Your task to perform on an android device: Check the weather Image 0: 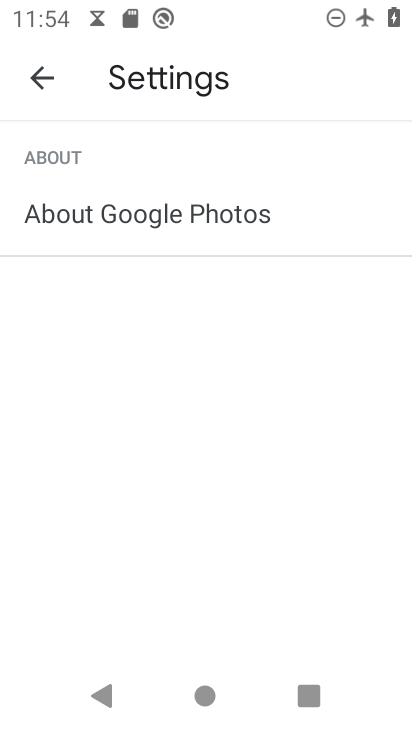
Step 0: press back button
Your task to perform on an android device: Check the weather Image 1: 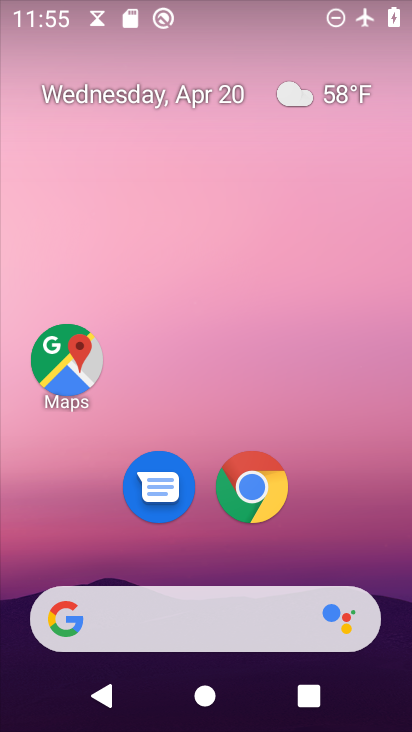
Step 1: drag from (232, 15) to (181, 428)
Your task to perform on an android device: Check the weather Image 2: 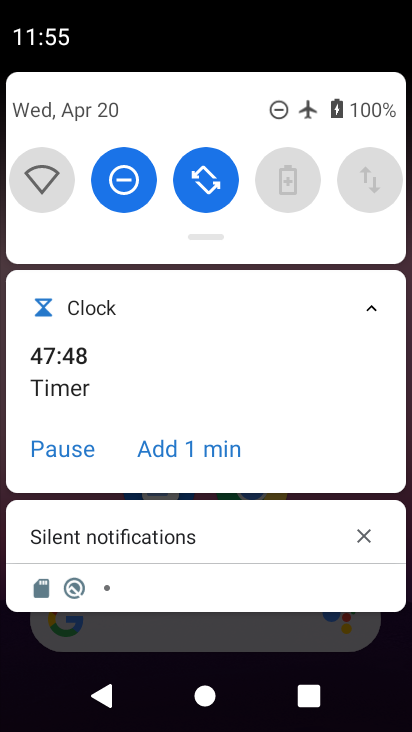
Step 2: click (37, 174)
Your task to perform on an android device: Check the weather Image 3: 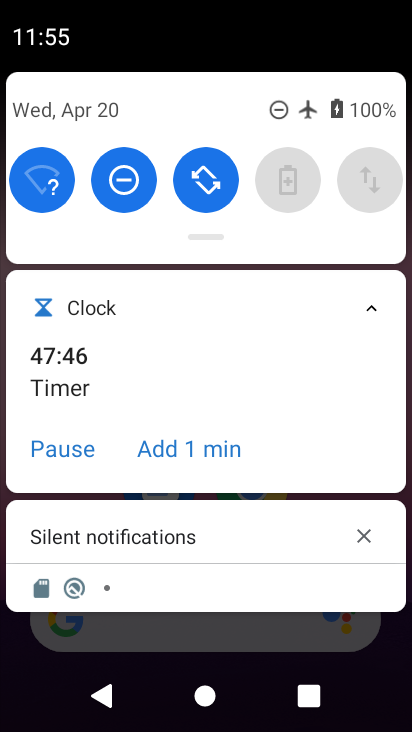
Step 3: drag from (358, 613) to (299, 91)
Your task to perform on an android device: Check the weather Image 4: 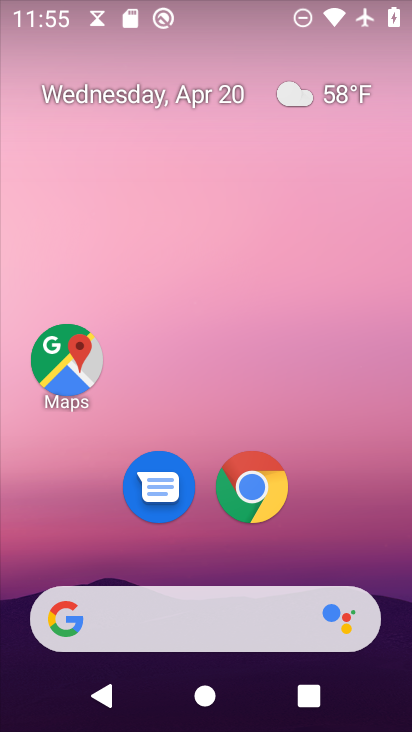
Step 4: click (214, 620)
Your task to perform on an android device: Check the weather Image 5: 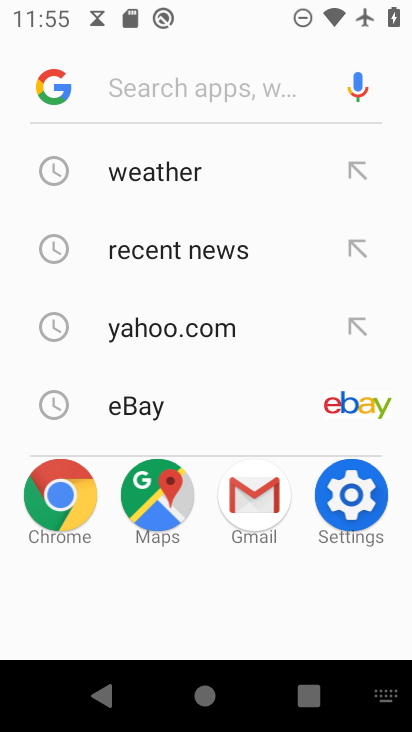
Step 5: click (157, 150)
Your task to perform on an android device: Check the weather Image 6: 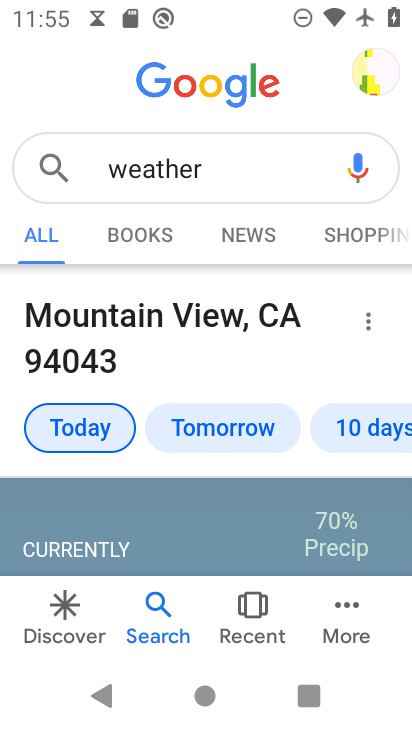
Step 6: task complete